Your task to perform on an android device: manage bookmarks in the chrome app Image 0: 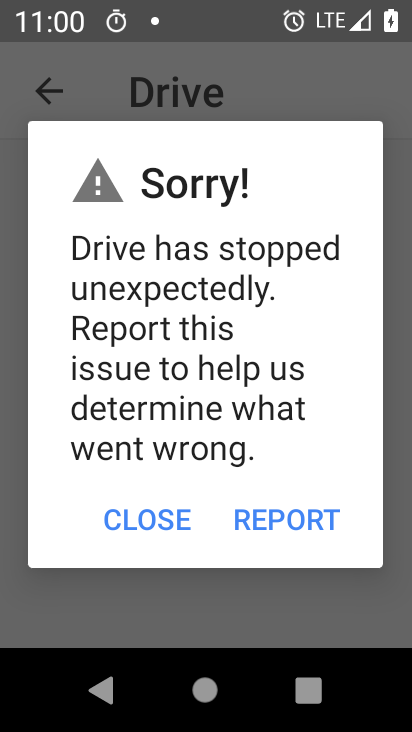
Step 0: press home button
Your task to perform on an android device: manage bookmarks in the chrome app Image 1: 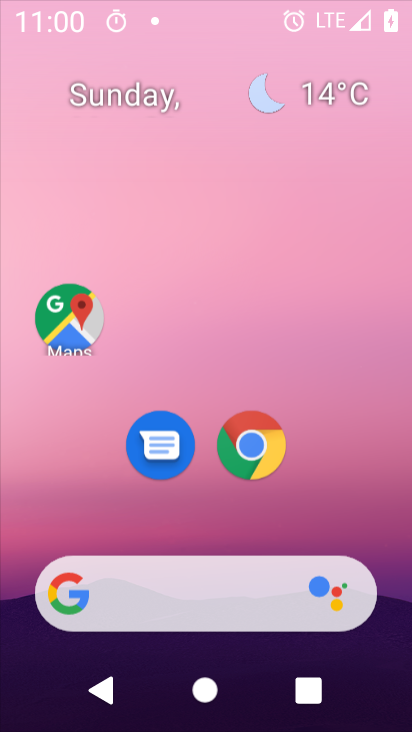
Step 1: drag from (220, 432) to (260, 82)
Your task to perform on an android device: manage bookmarks in the chrome app Image 2: 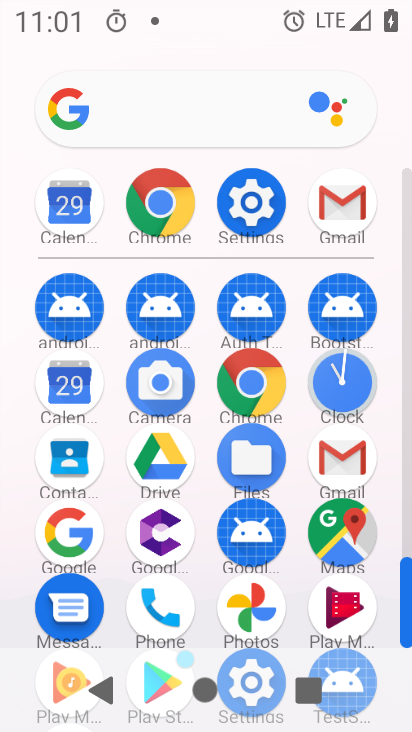
Step 2: click (259, 380)
Your task to perform on an android device: manage bookmarks in the chrome app Image 3: 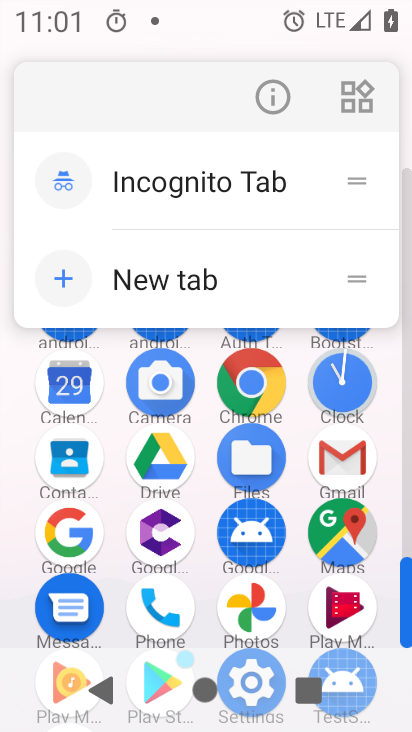
Step 3: click (276, 94)
Your task to perform on an android device: manage bookmarks in the chrome app Image 4: 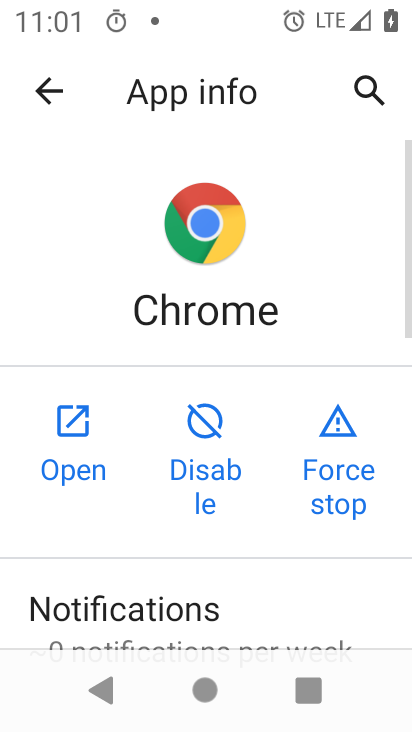
Step 4: click (83, 423)
Your task to perform on an android device: manage bookmarks in the chrome app Image 5: 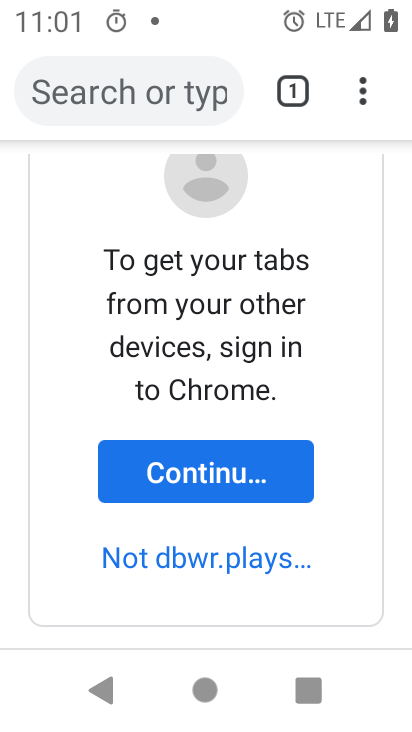
Step 5: task complete